Your task to perform on an android device: turn off improve location accuracy Image 0: 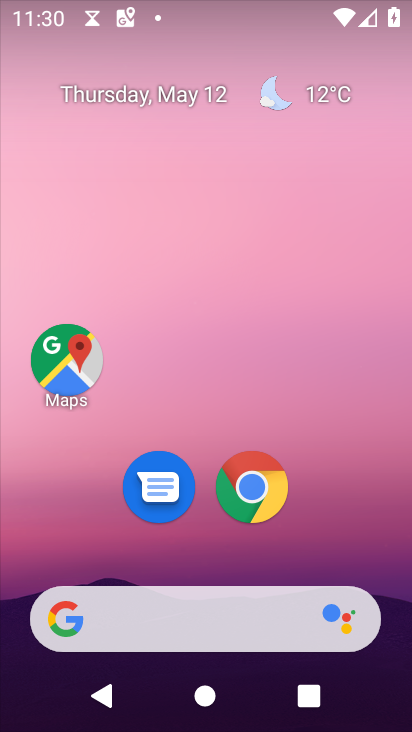
Step 0: drag from (381, 579) to (328, 6)
Your task to perform on an android device: turn off improve location accuracy Image 1: 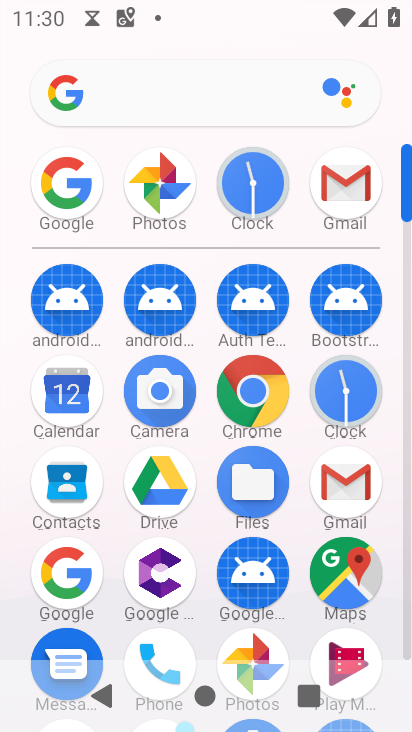
Step 1: drag from (404, 521) to (411, 446)
Your task to perform on an android device: turn off improve location accuracy Image 2: 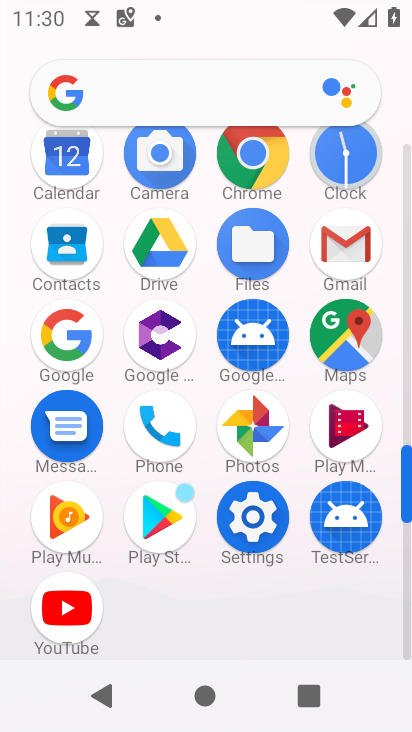
Step 2: click (259, 515)
Your task to perform on an android device: turn off improve location accuracy Image 3: 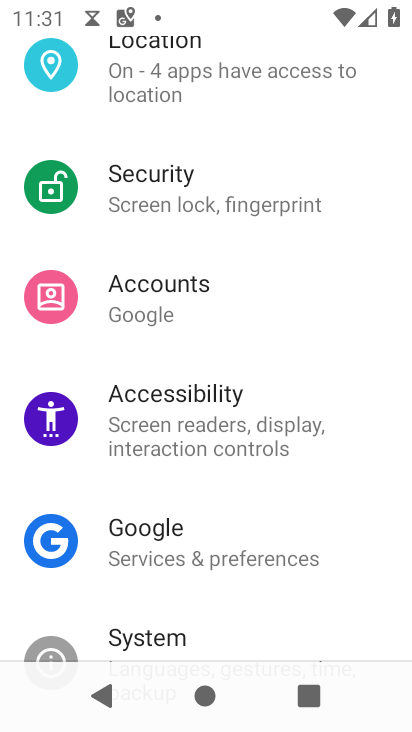
Step 3: click (157, 73)
Your task to perform on an android device: turn off improve location accuracy Image 4: 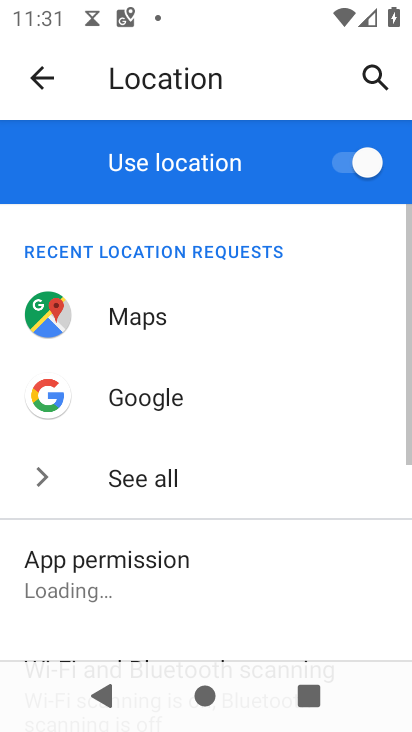
Step 4: click (353, 167)
Your task to perform on an android device: turn off improve location accuracy Image 5: 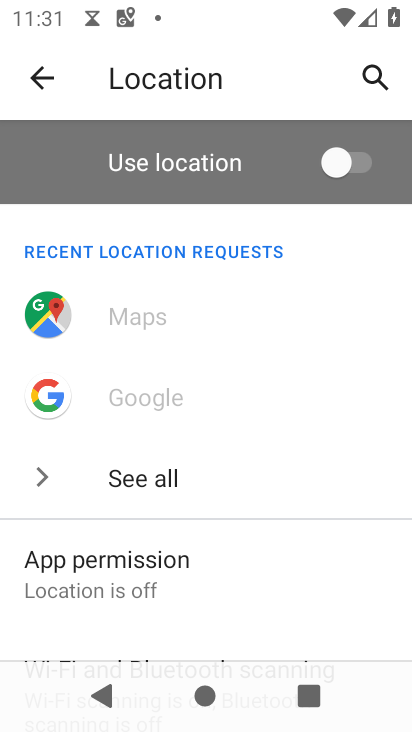
Step 5: drag from (260, 501) to (262, 136)
Your task to perform on an android device: turn off improve location accuracy Image 6: 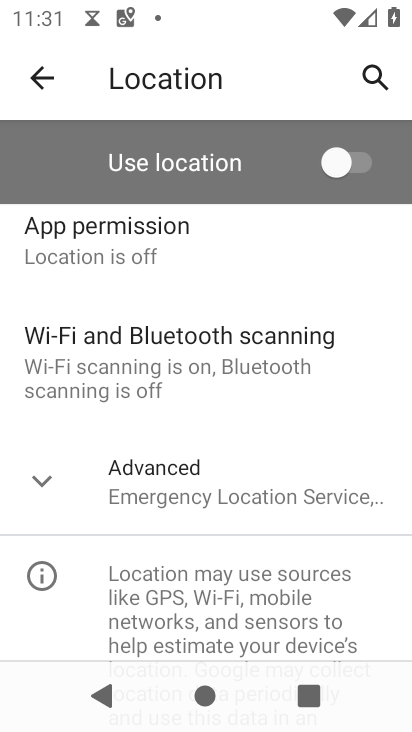
Step 6: click (37, 489)
Your task to perform on an android device: turn off improve location accuracy Image 7: 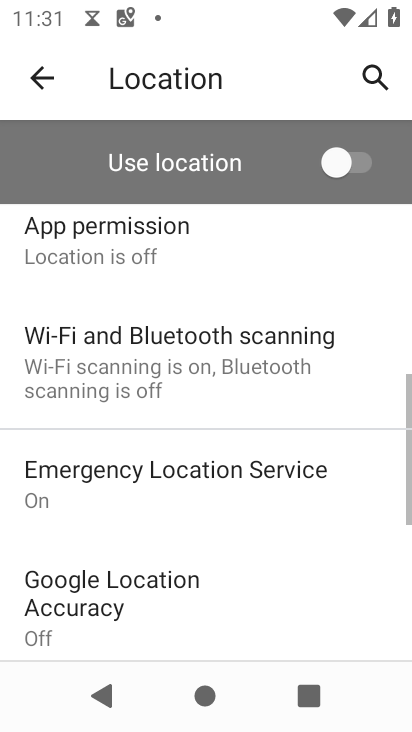
Step 7: drag from (179, 531) to (205, 151)
Your task to perform on an android device: turn off improve location accuracy Image 8: 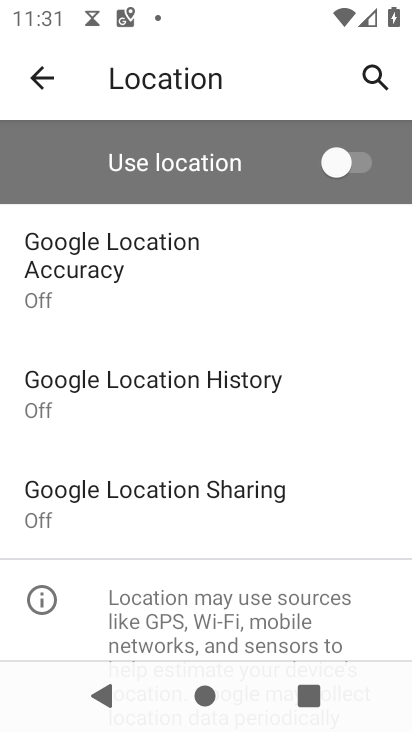
Step 8: click (84, 274)
Your task to perform on an android device: turn off improve location accuracy Image 9: 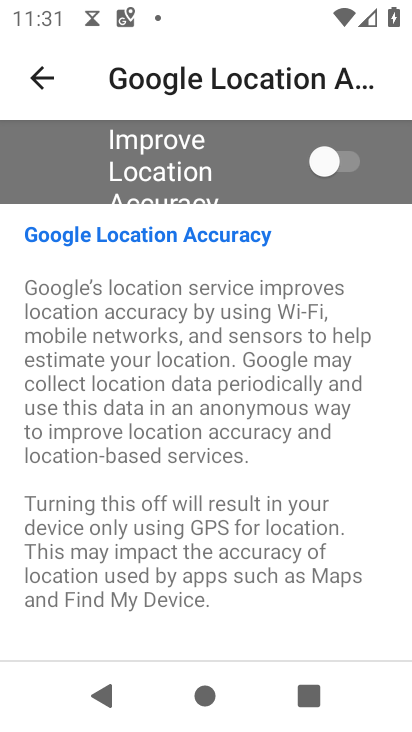
Step 9: task complete